Your task to perform on an android device: Go to internet settings Image 0: 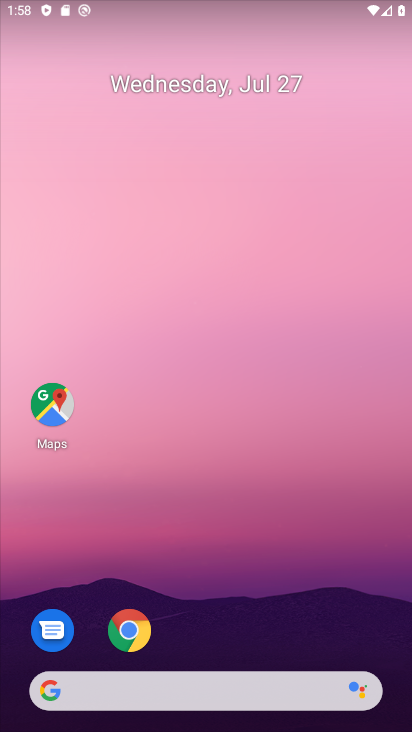
Step 0: click (200, 12)
Your task to perform on an android device: Go to internet settings Image 1: 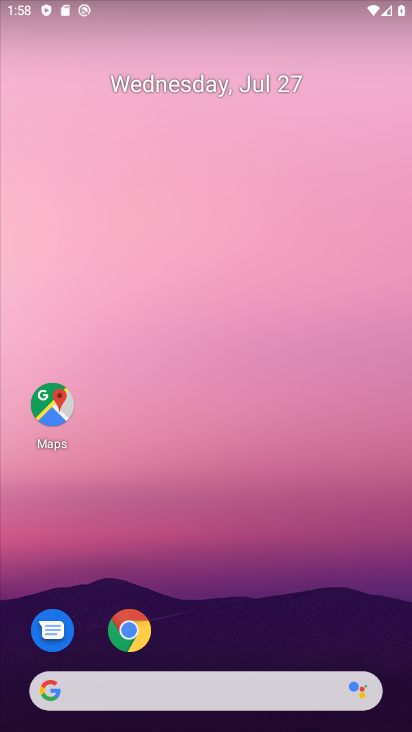
Step 1: drag from (168, 6) to (410, 210)
Your task to perform on an android device: Go to internet settings Image 2: 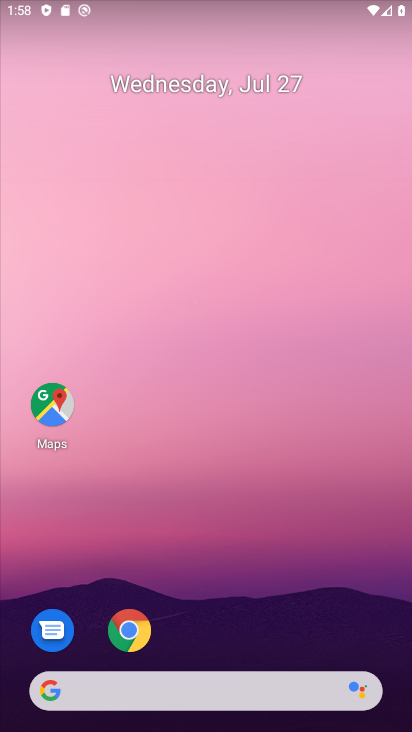
Step 2: drag from (335, 637) to (149, 16)
Your task to perform on an android device: Go to internet settings Image 3: 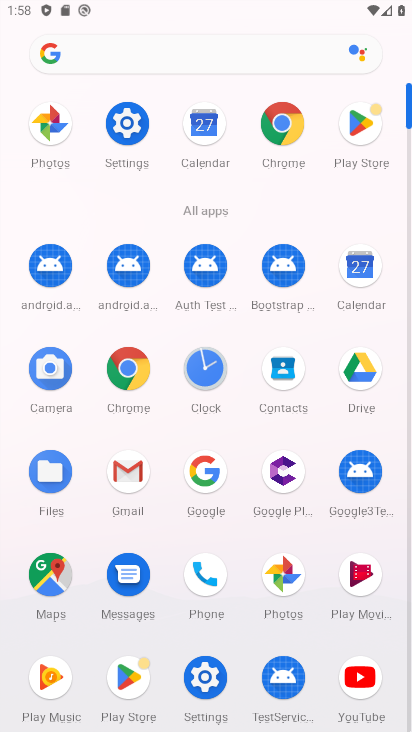
Step 3: click (207, 678)
Your task to perform on an android device: Go to internet settings Image 4: 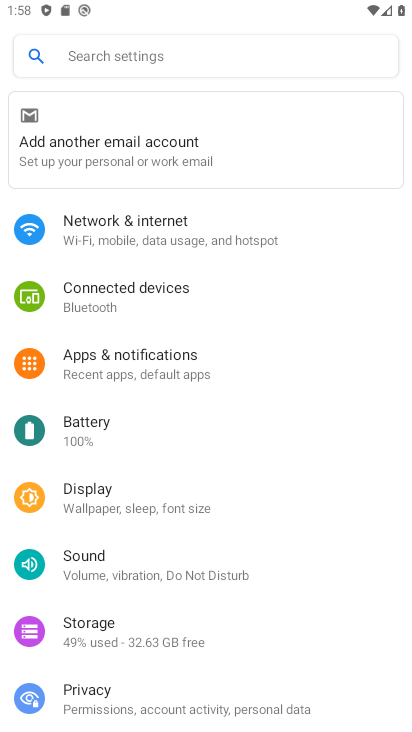
Step 4: click (99, 215)
Your task to perform on an android device: Go to internet settings Image 5: 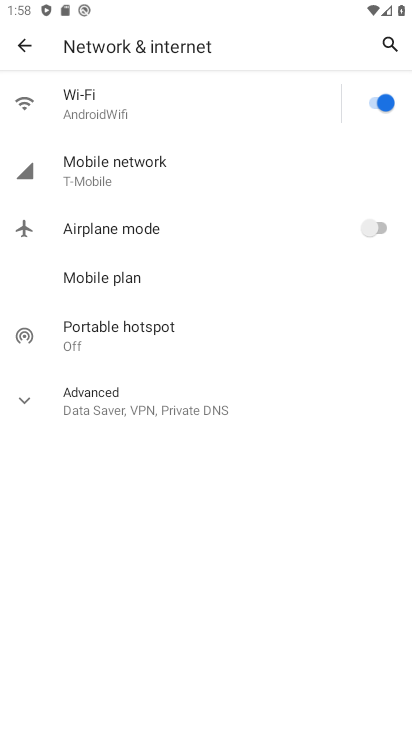
Step 5: task complete